Your task to perform on an android device: delete location history Image 0: 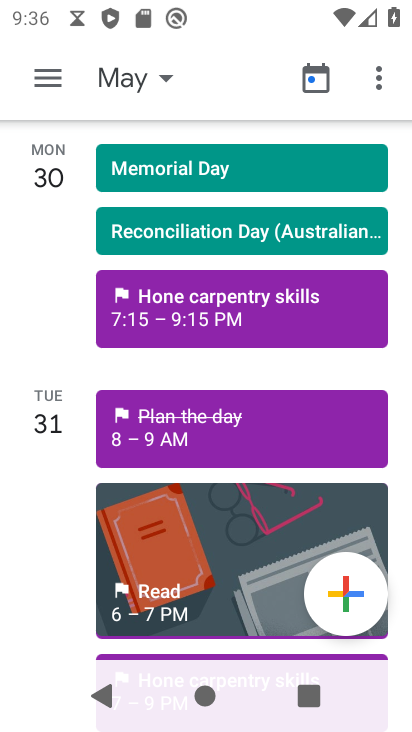
Step 0: press back button
Your task to perform on an android device: delete location history Image 1: 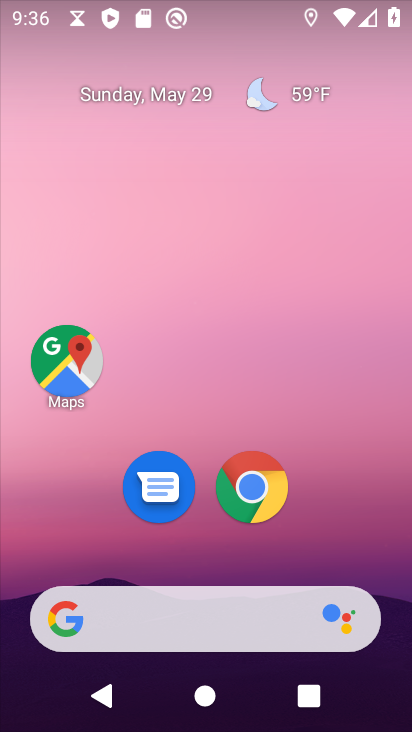
Step 1: click (65, 365)
Your task to perform on an android device: delete location history Image 2: 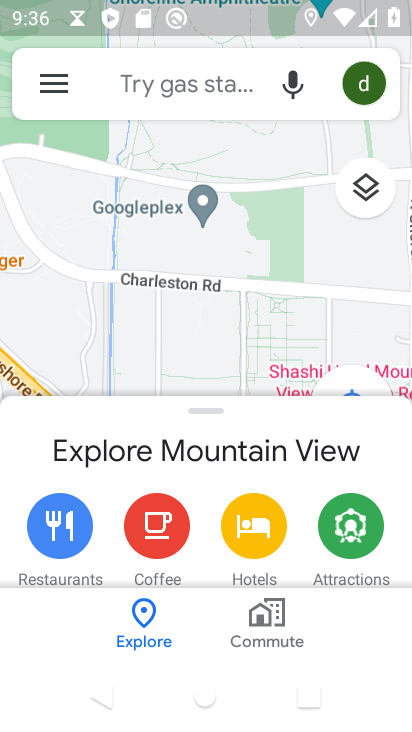
Step 2: click (52, 88)
Your task to perform on an android device: delete location history Image 3: 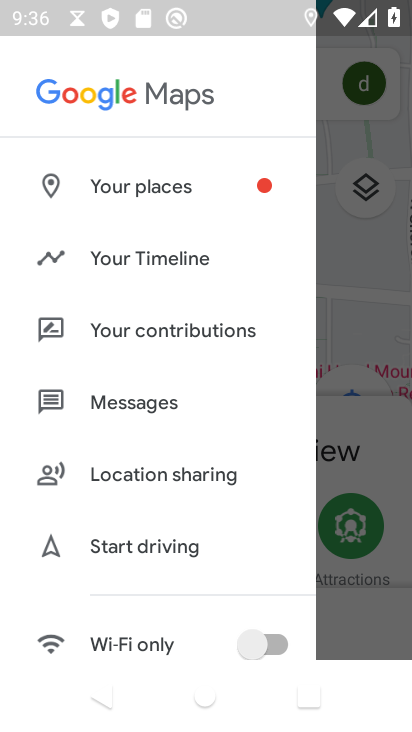
Step 3: drag from (123, 455) to (183, 335)
Your task to perform on an android device: delete location history Image 4: 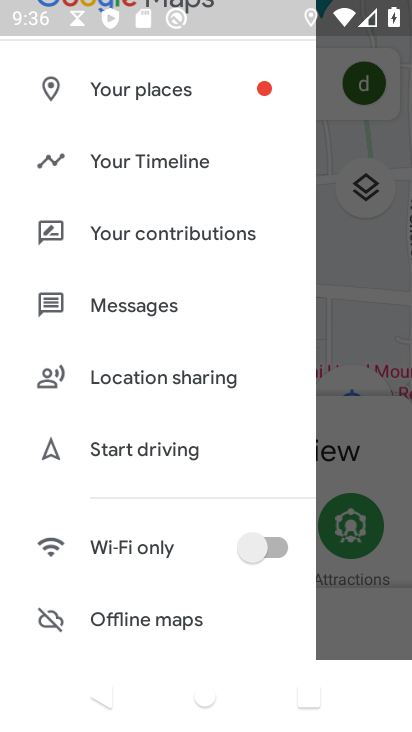
Step 4: drag from (115, 516) to (200, 399)
Your task to perform on an android device: delete location history Image 5: 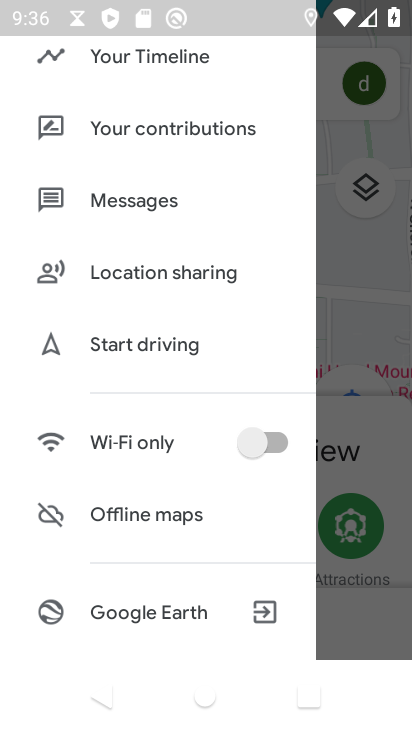
Step 5: drag from (138, 480) to (196, 376)
Your task to perform on an android device: delete location history Image 6: 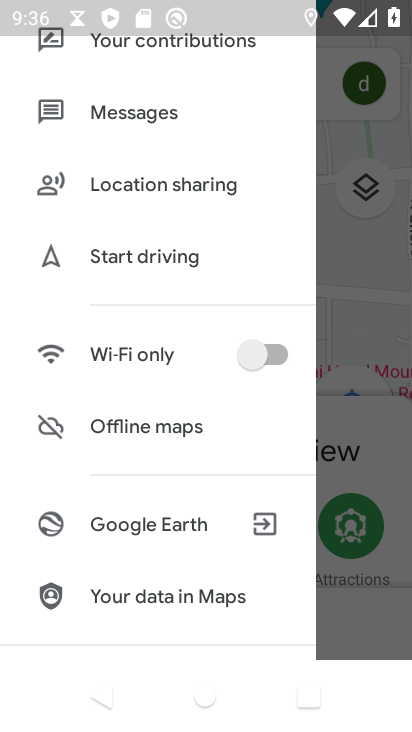
Step 6: drag from (133, 566) to (205, 437)
Your task to perform on an android device: delete location history Image 7: 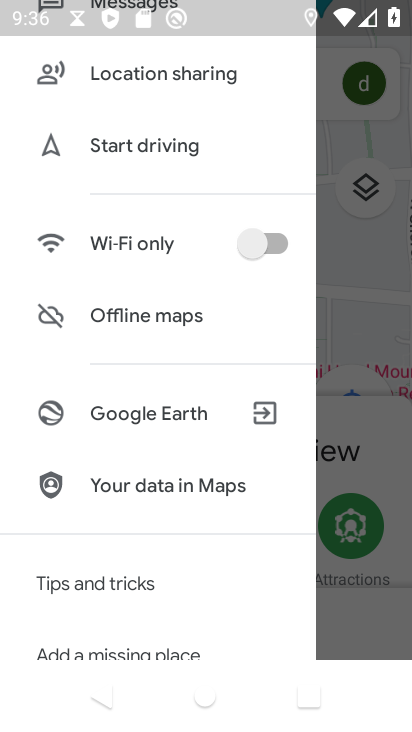
Step 7: drag from (107, 605) to (190, 461)
Your task to perform on an android device: delete location history Image 8: 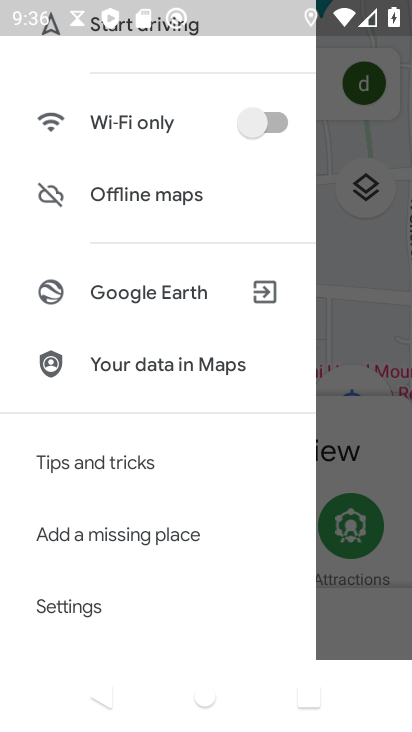
Step 8: drag from (87, 568) to (184, 460)
Your task to perform on an android device: delete location history Image 9: 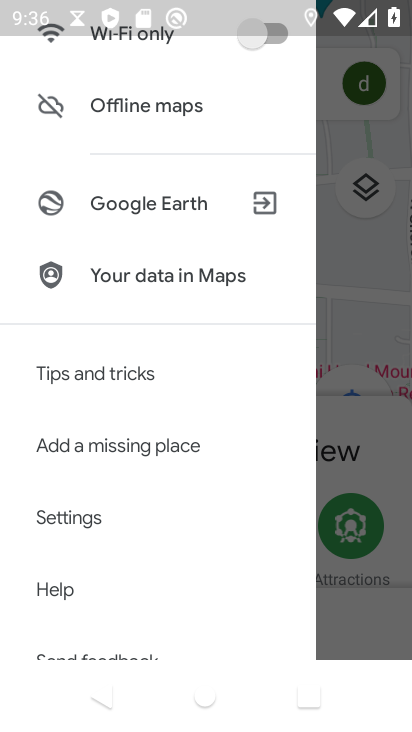
Step 9: click (78, 518)
Your task to perform on an android device: delete location history Image 10: 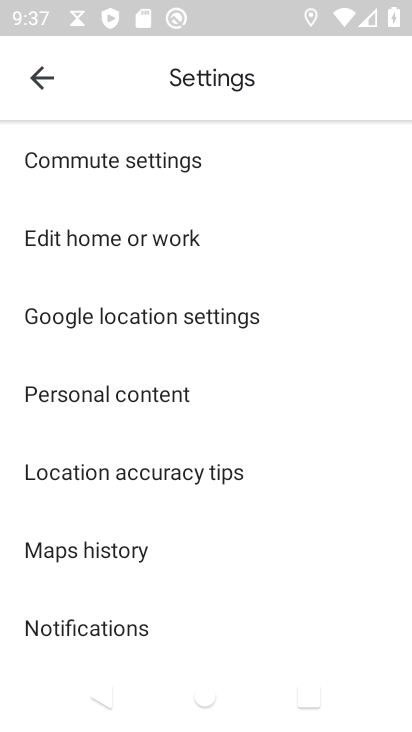
Step 10: click (133, 392)
Your task to perform on an android device: delete location history Image 11: 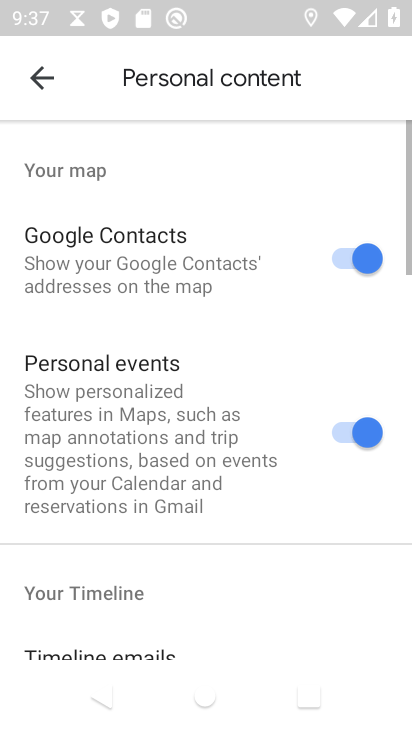
Step 11: drag from (157, 592) to (201, 450)
Your task to perform on an android device: delete location history Image 12: 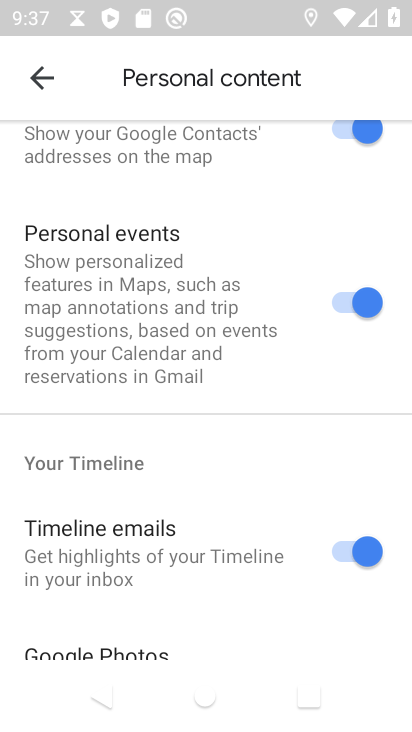
Step 12: drag from (125, 608) to (201, 489)
Your task to perform on an android device: delete location history Image 13: 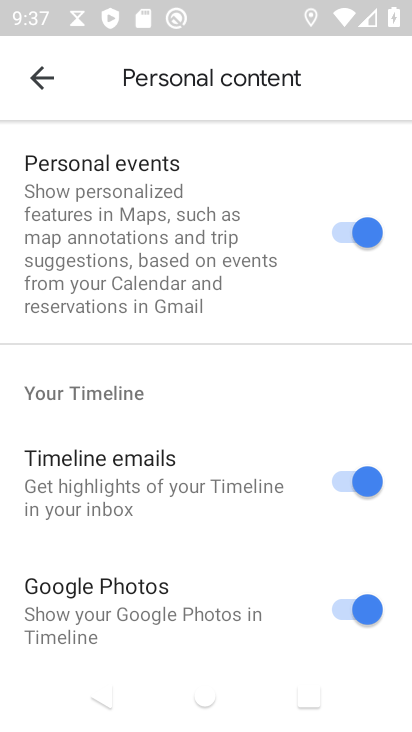
Step 13: drag from (159, 550) to (219, 407)
Your task to perform on an android device: delete location history Image 14: 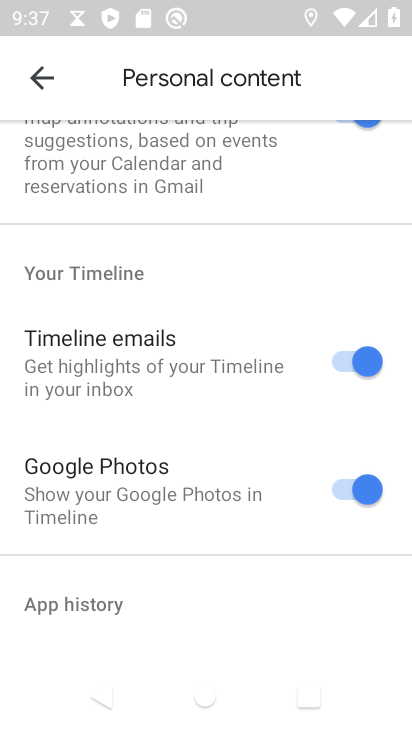
Step 14: drag from (160, 593) to (221, 440)
Your task to perform on an android device: delete location history Image 15: 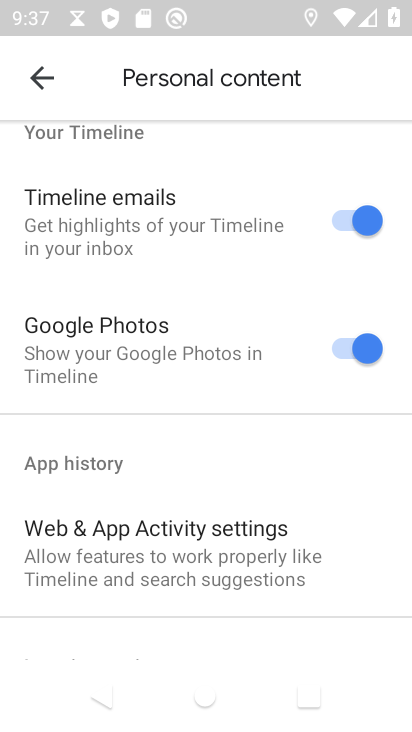
Step 15: drag from (127, 550) to (233, 390)
Your task to perform on an android device: delete location history Image 16: 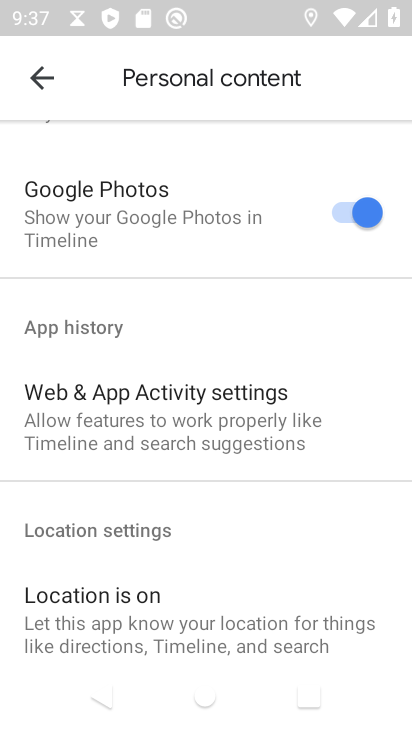
Step 16: drag from (173, 587) to (249, 423)
Your task to perform on an android device: delete location history Image 17: 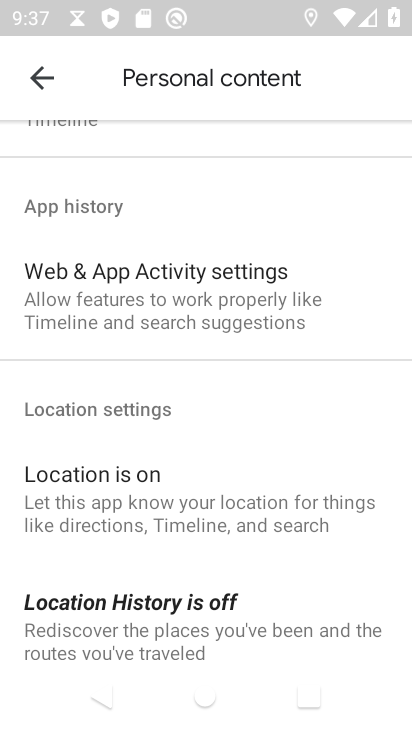
Step 17: drag from (184, 618) to (270, 487)
Your task to perform on an android device: delete location history Image 18: 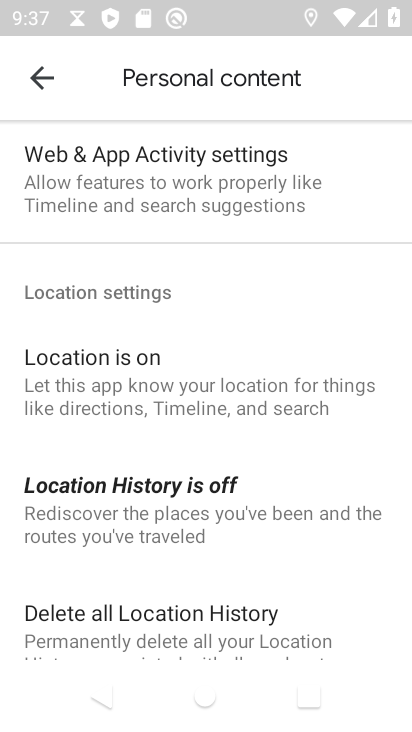
Step 18: drag from (201, 597) to (284, 464)
Your task to perform on an android device: delete location history Image 19: 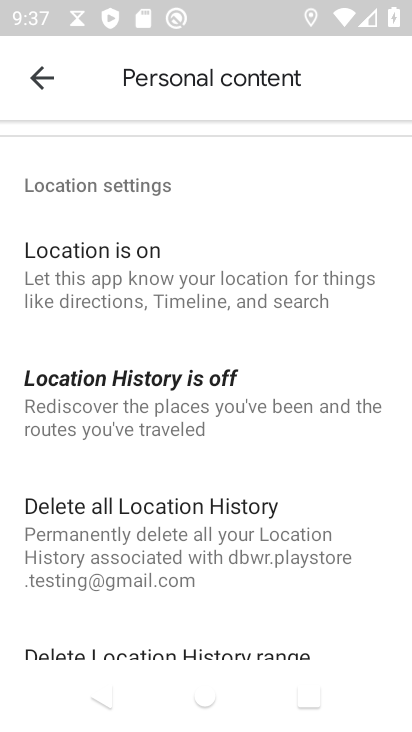
Step 19: click (248, 502)
Your task to perform on an android device: delete location history Image 20: 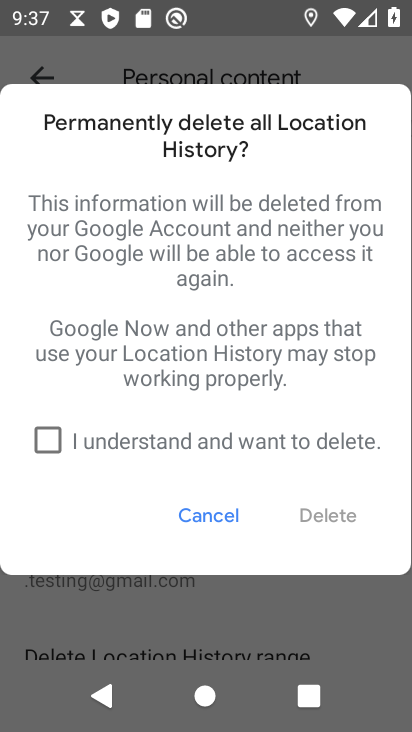
Step 20: click (49, 443)
Your task to perform on an android device: delete location history Image 21: 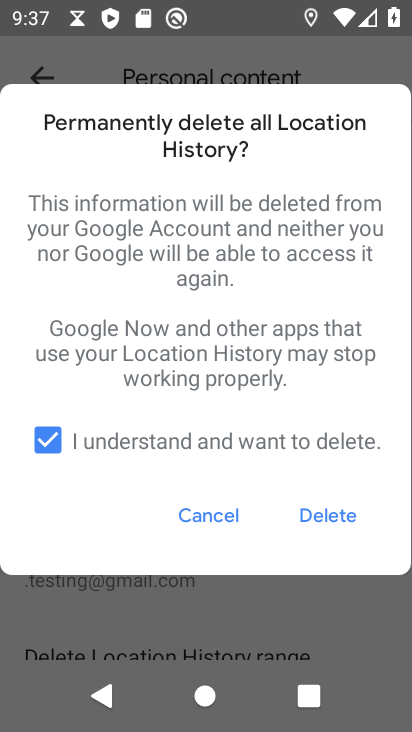
Step 21: click (347, 509)
Your task to perform on an android device: delete location history Image 22: 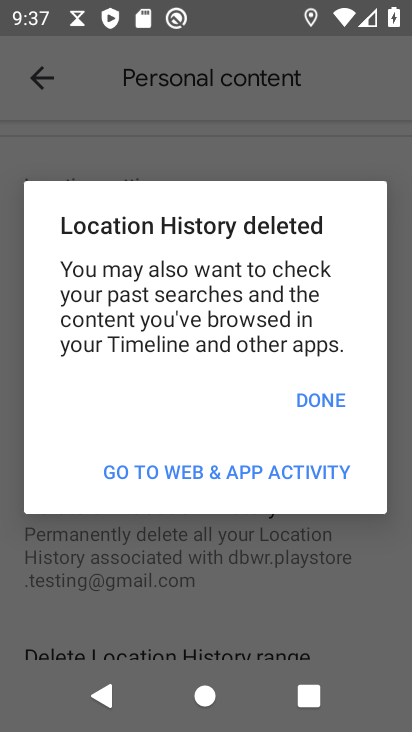
Step 22: click (332, 393)
Your task to perform on an android device: delete location history Image 23: 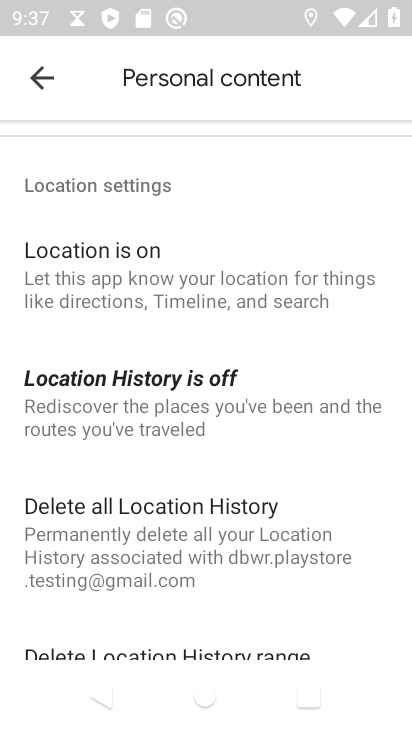
Step 23: task complete